Your task to perform on an android device: see creations saved in the google photos Image 0: 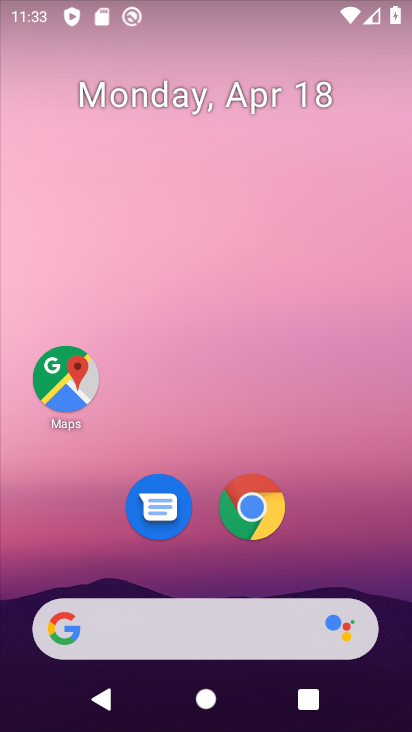
Step 0: drag from (209, 565) to (220, 1)
Your task to perform on an android device: see creations saved in the google photos Image 1: 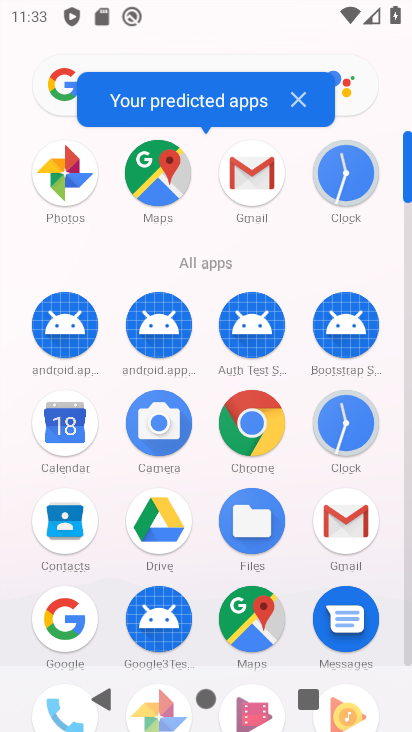
Step 1: drag from (205, 579) to (246, 99)
Your task to perform on an android device: see creations saved in the google photos Image 2: 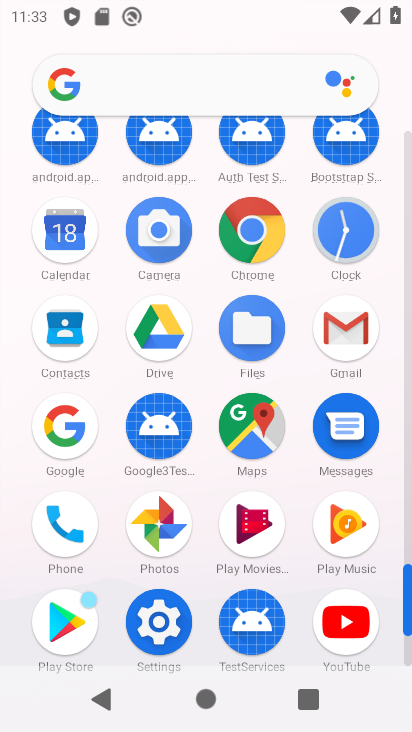
Step 2: click (155, 520)
Your task to perform on an android device: see creations saved in the google photos Image 3: 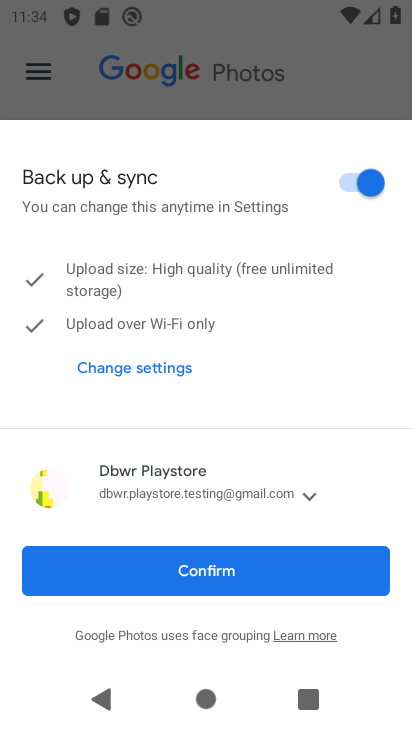
Step 3: click (226, 568)
Your task to perform on an android device: see creations saved in the google photos Image 4: 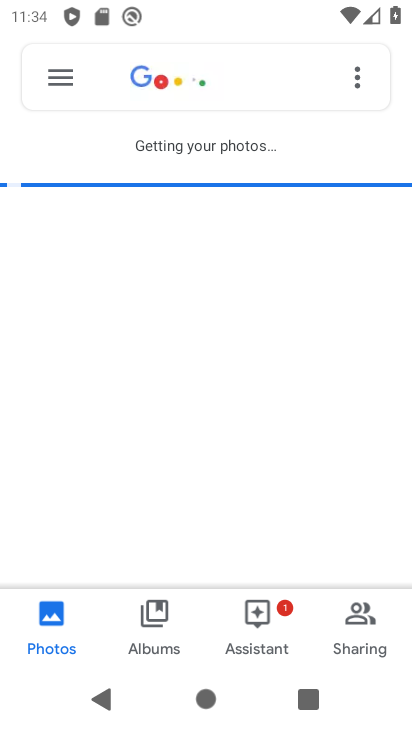
Step 4: click (54, 72)
Your task to perform on an android device: see creations saved in the google photos Image 5: 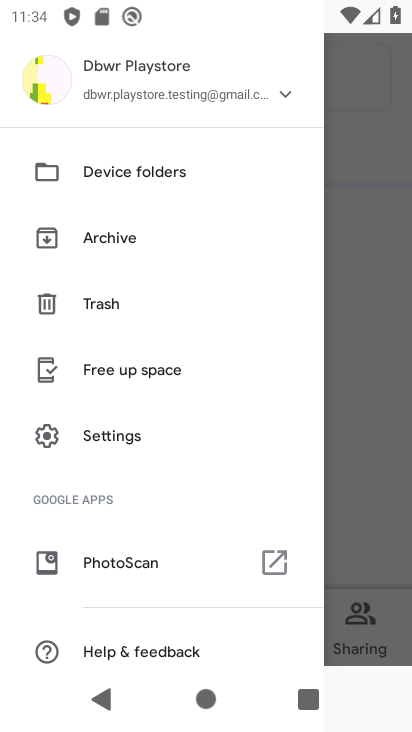
Step 5: click (358, 473)
Your task to perform on an android device: see creations saved in the google photos Image 6: 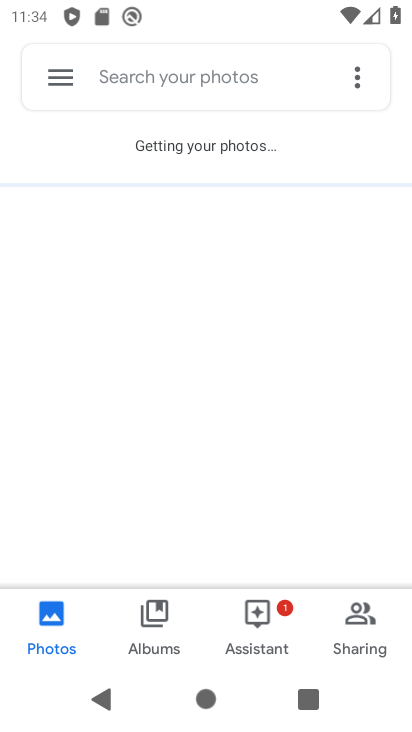
Step 6: click (145, 75)
Your task to perform on an android device: see creations saved in the google photos Image 7: 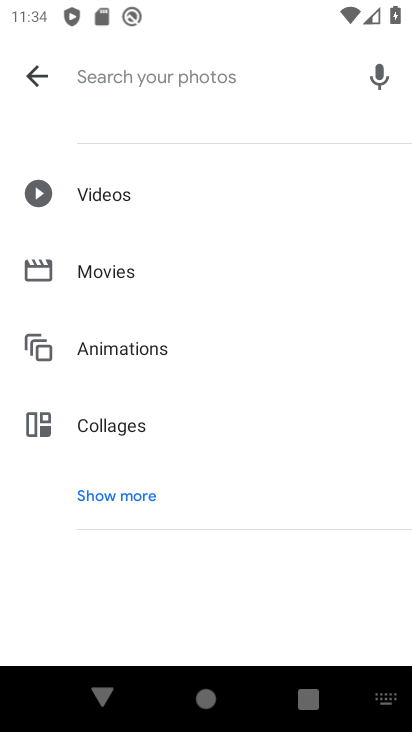
Step 7: click (103, 497)
Your task to perform on an android device: see creations saved in the google photos Image 8: 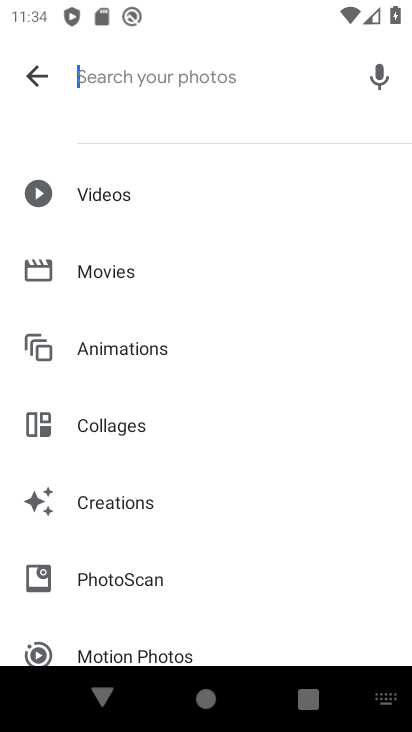
Step 8: click (121, 491)
Your task to perform on an android device: see creations saved in the google photos Image 9: 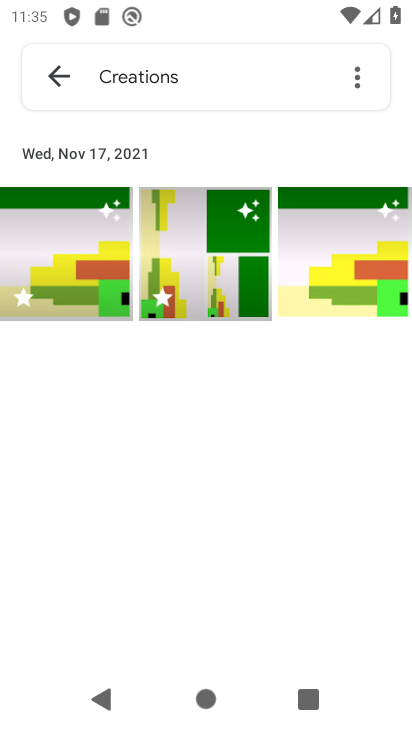
Step 9: task complete